Your task to perform on an android device: Open settings Image 0: 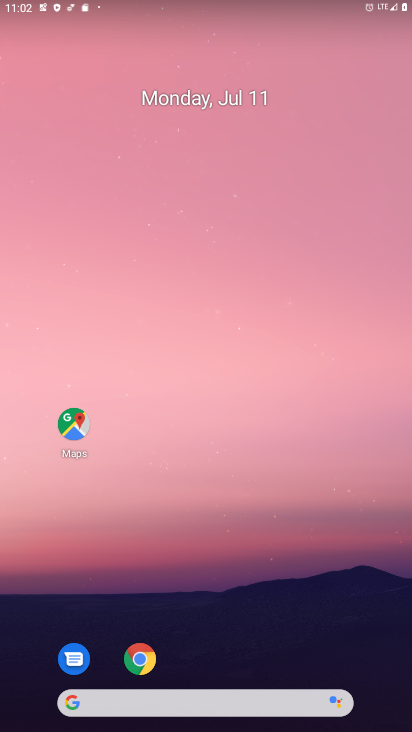
Step 0: drag from (252, 241) to (264, 156)
Your task to perform on an android device: Open settings Image 1: 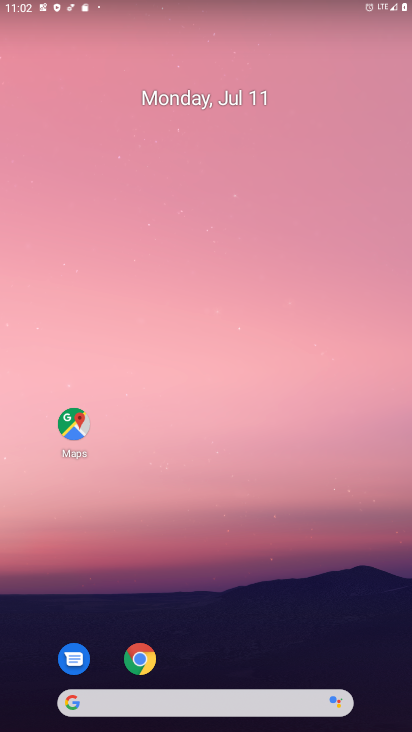
Step 1: drag from (220, 655) to (234, 113)
Your task to perform on an android device: Open settings Image 2: 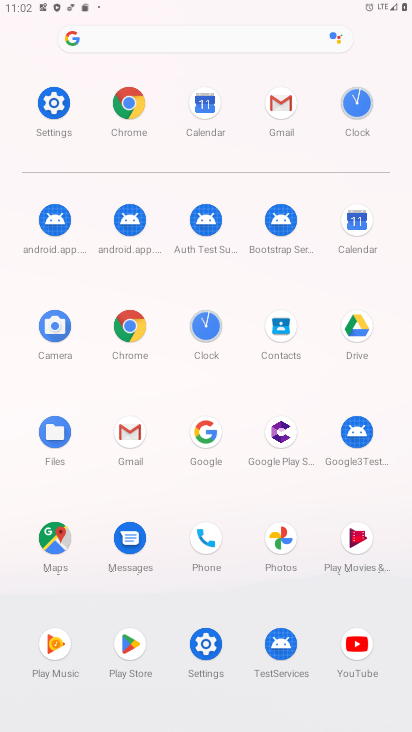
Step 2: click (205, 642)
Your task to perform on an android device: Open settings Image 3: 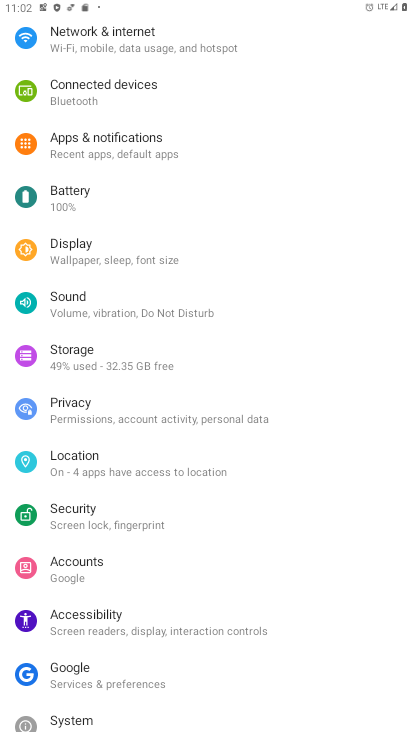
Step 3: task complete